Your task to perform on an android device: Add alienware aurora to the cart on target.com Image 0: 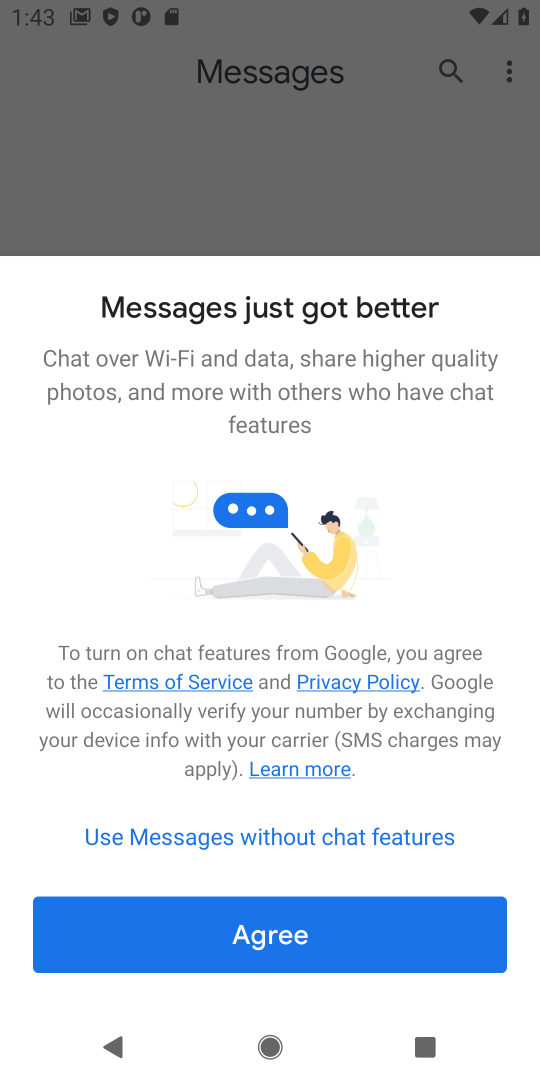
Step 0: press home button
Your task to perform on an android device: Add alienware aurora to the cart on target.com Image 1: 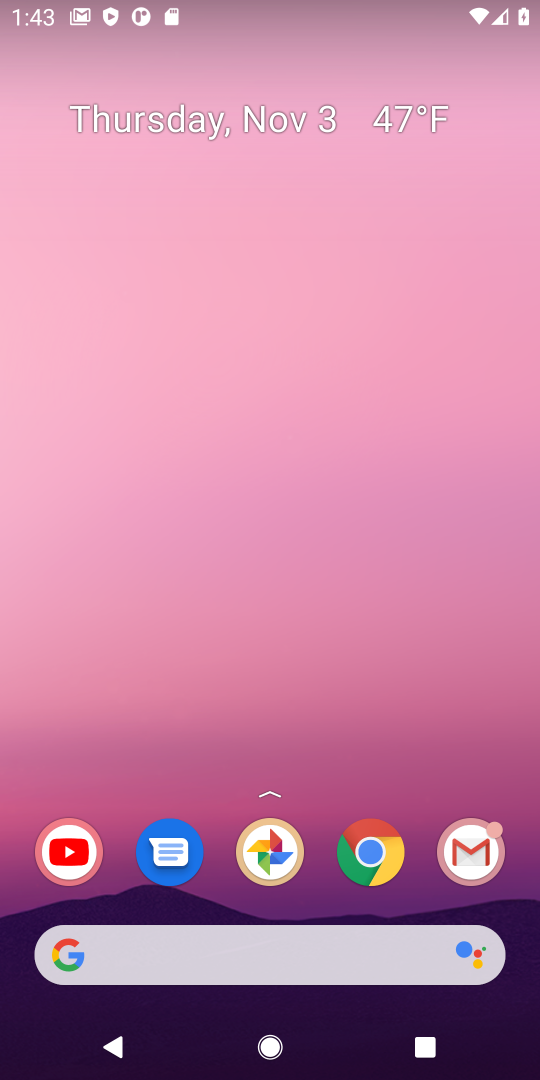
Step 1: click (372, 864)
Your task to perform on an android device: Add alienware aurora to the cart on target.com Image 2: 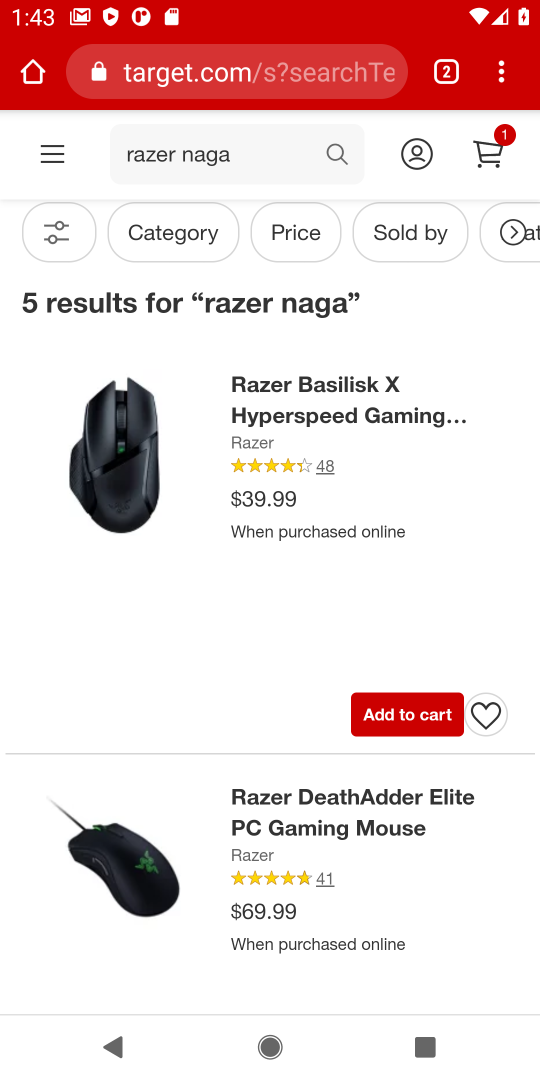
Step 2: click (331, 158)
Your task to perform on an android device: Add alienware aurora to the cart on target.com Image 3: 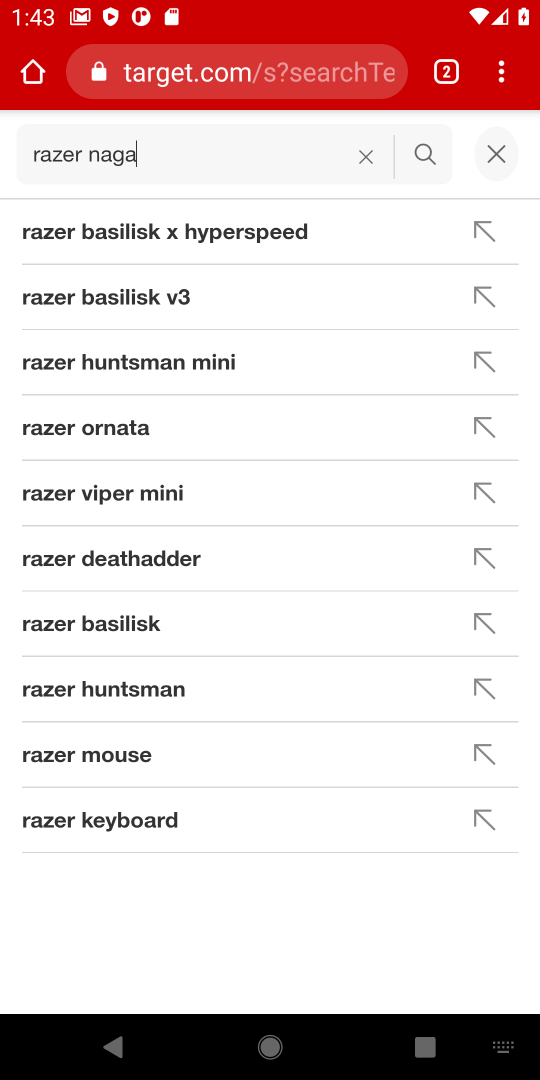
Step 3: click (360, 153)
Your task to perform on an android device: Add alienware aurora to the cart on target.com Image 4: 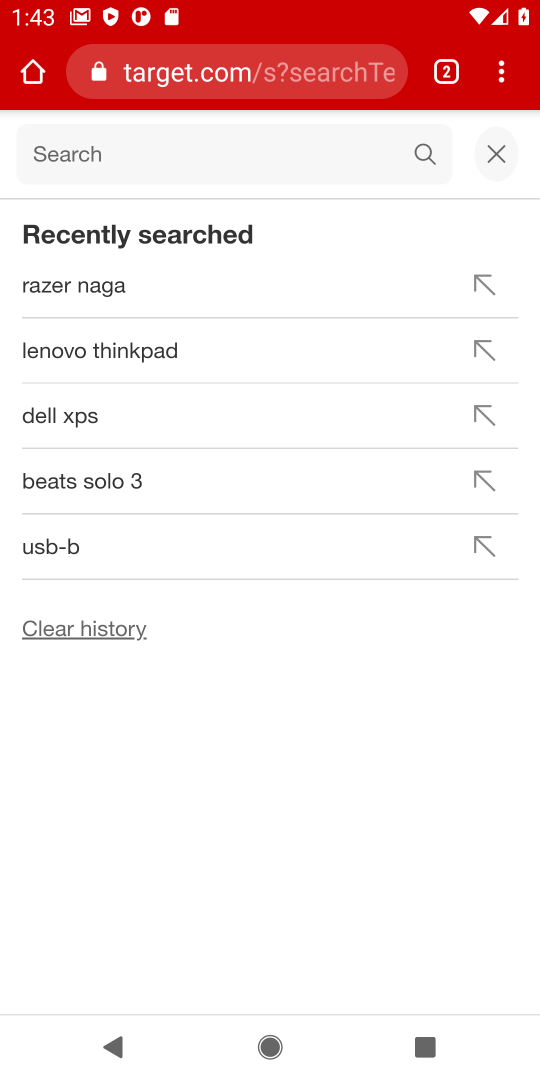
Step 4: click (88, 160)
Your task to perform on an android device: Add alienware aurora to the cart on target.com Image 5: 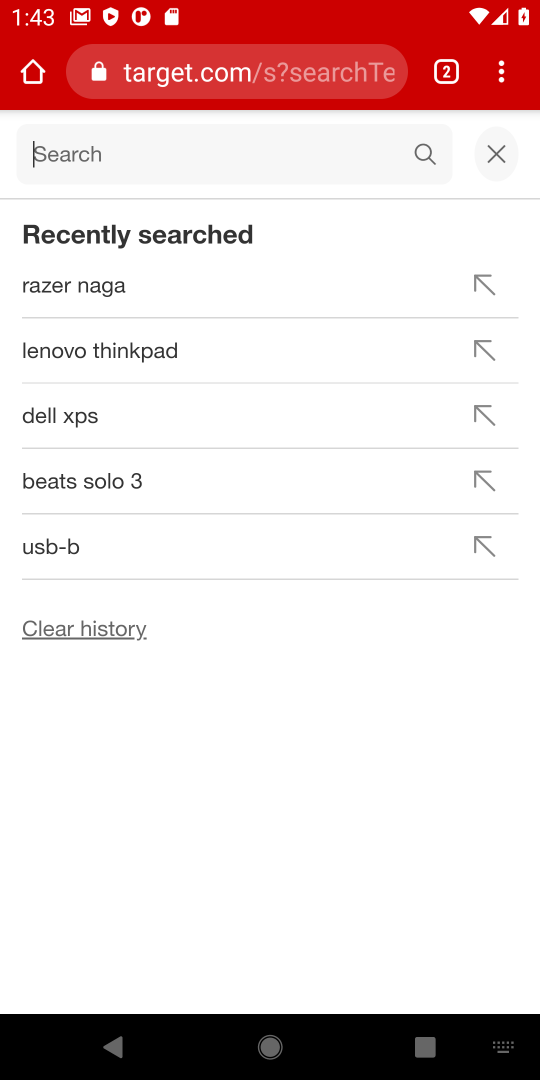
Step 5: type "alienware aurora"
Your task to perform on an android device: Add alienware aurora to the cart on target.com Image 6: 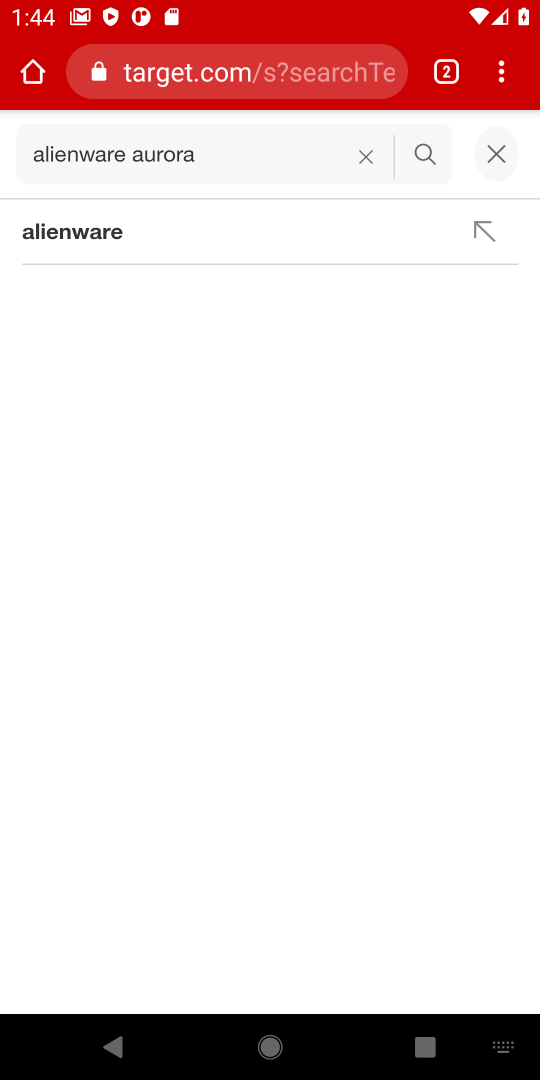
Step 6: click (419, 155)
Your task to perform on an android device: Add alienware aurora to the cart on target.com Image 7: 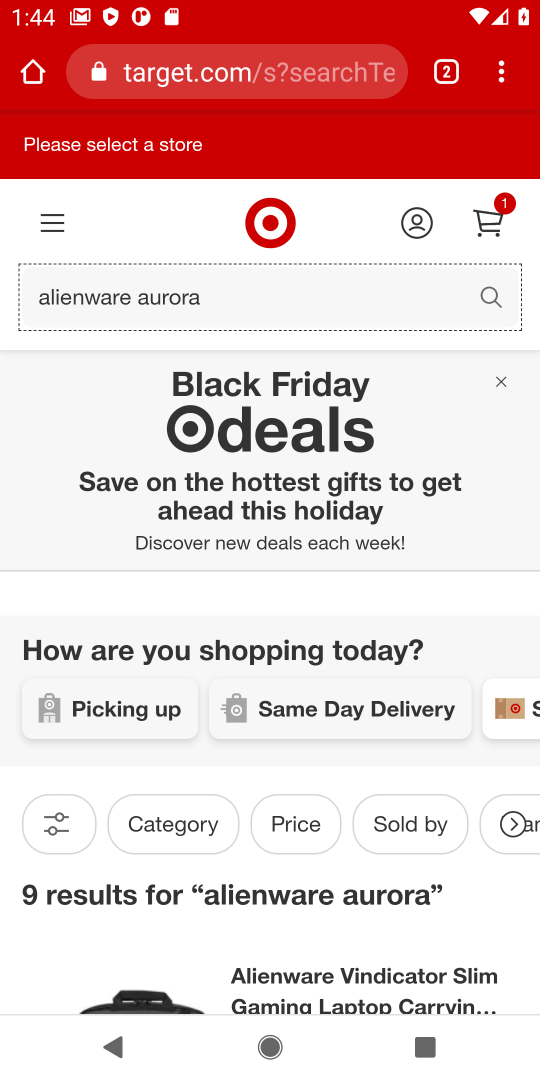
Step 7: task complete